Your task to perform on an android device: Is it going to rain tomorrow? Image 0: 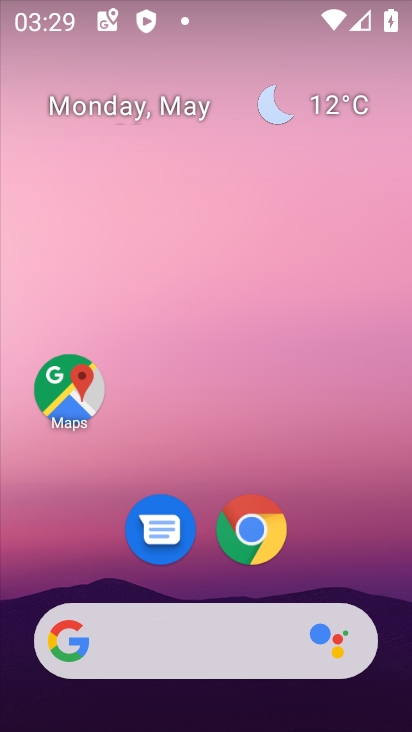
Step 0: click (340, 105)
Your task to perform on an android device: Is it going to rain tomorrow? Image 1: 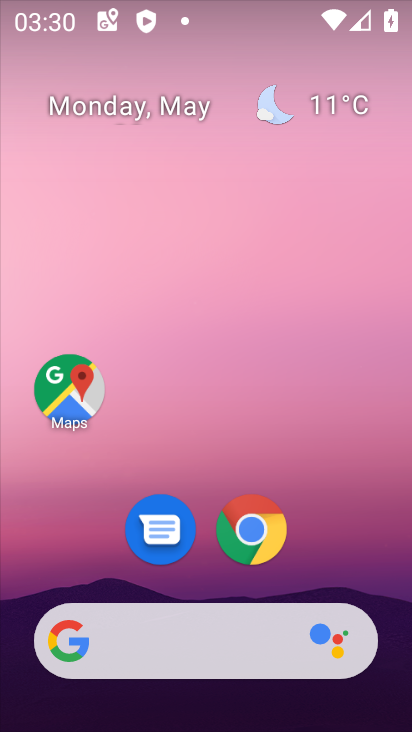
Step 1: click (328, 104)
Your task to perform on an android device: Is it going to rain tomorrow? Image 2: 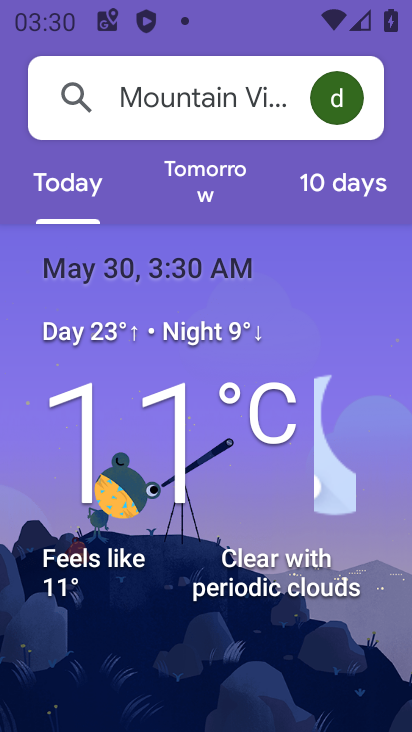
Step 2: click (182, 181)
Your task to perform on an android device: Is it going to rain tomorrow? Image 3: 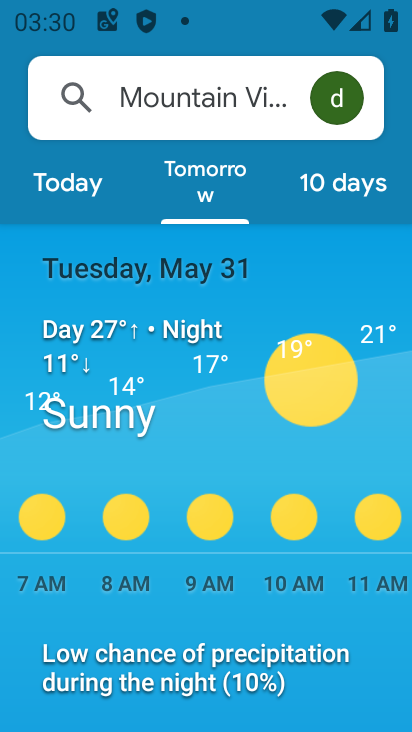
Step 3: task complete